Your task to perform on an android device: toggle improve location accuracy Image 0: 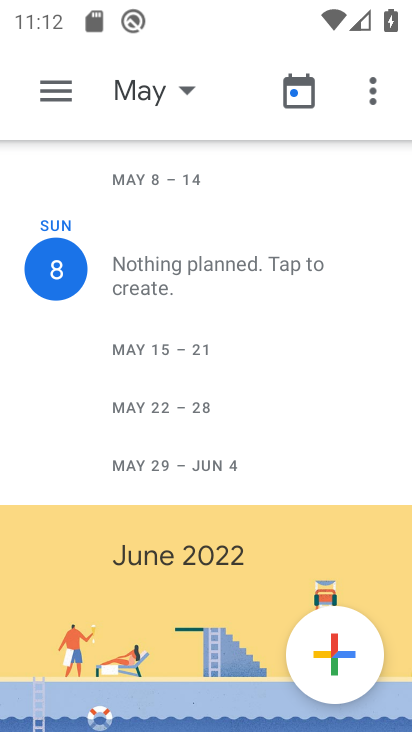
Step 0: press home button
Your task to perform on an android device: toggle improve location accuracy Image 1: 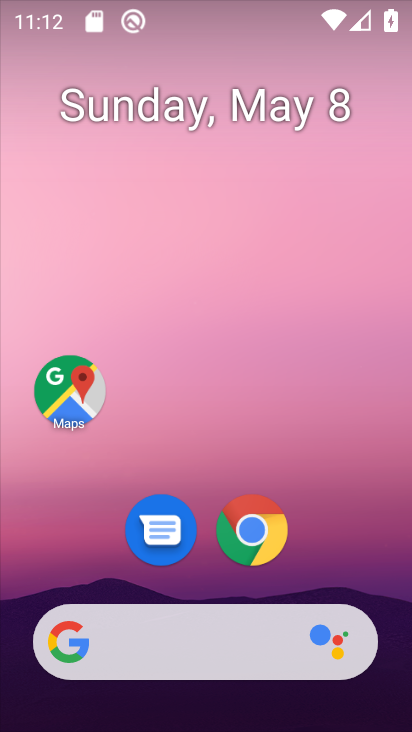
Step 1: drag from (332, 633) to (246, 30)
Your task to perform on an android device: toggle improve location accuracy Image 2: 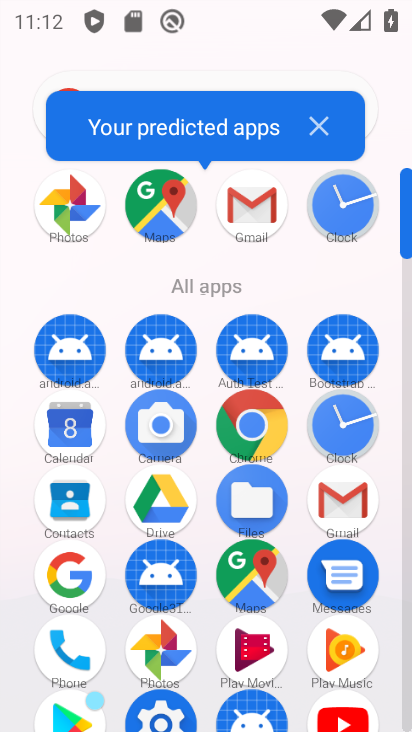
Step 2: drag from (294, 672) to (308, 307)
Your task to perform on an android device: toggle improve location accuracy Image 3: 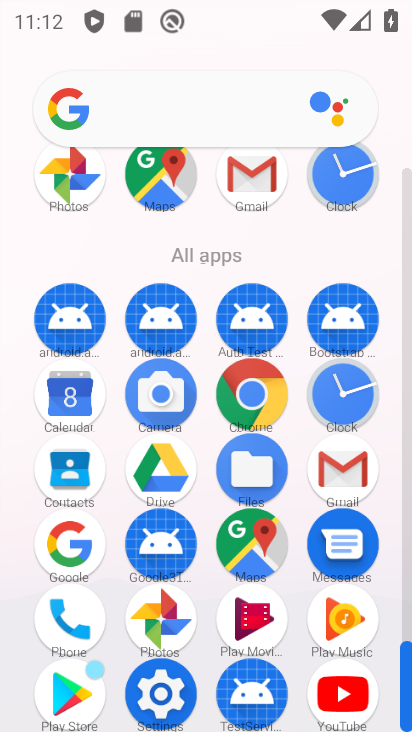
Step 3: click (149, 695)
Your task to perform on an android device: toggle improve location accuracy Image 4: 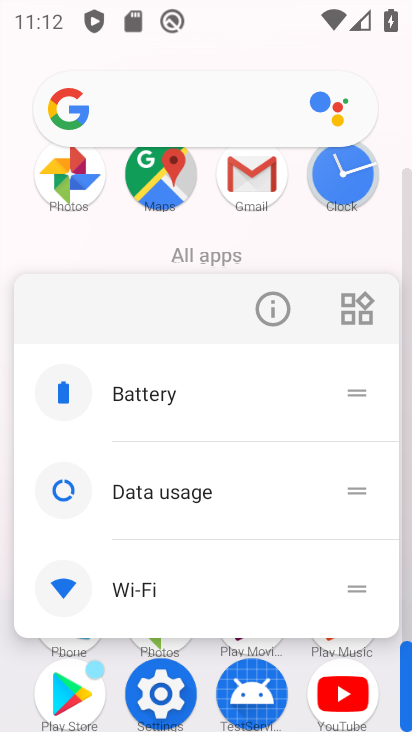
Step 4: click (171, 691)
Your task to perform on an android device: toggle improve location accuracy Image 5: 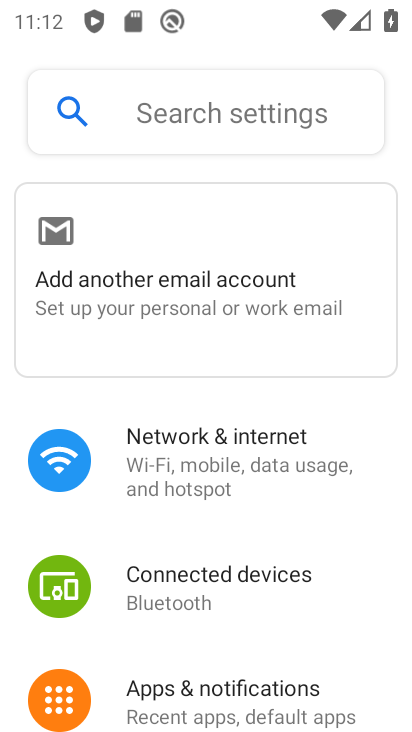
Step 5: drag from (254, 665) to (228, 129)
Your task to perform on an android device: toggle improve location accuracy Image 6: 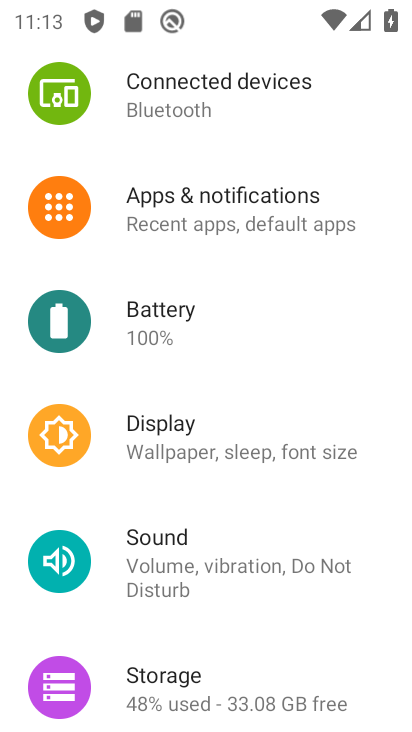
Step 6: drag from (229, 692) to (264, 232)
Your task to perform on an android device: toggle improve location accuracy Image 7: 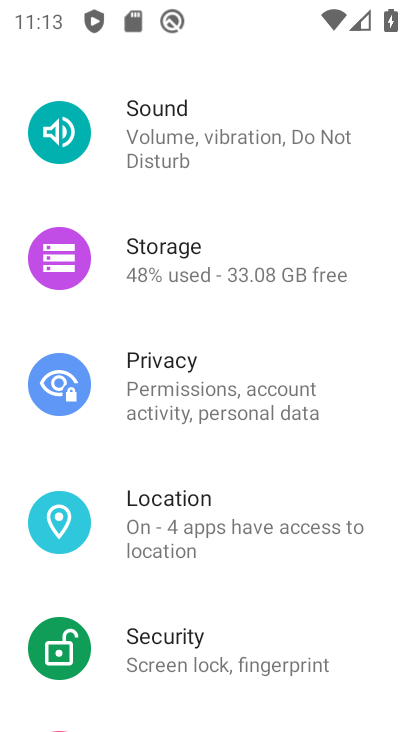
Step 7: click (234, 536)
Your task to perform on an android device: toggle improve location accuracy Image 8: 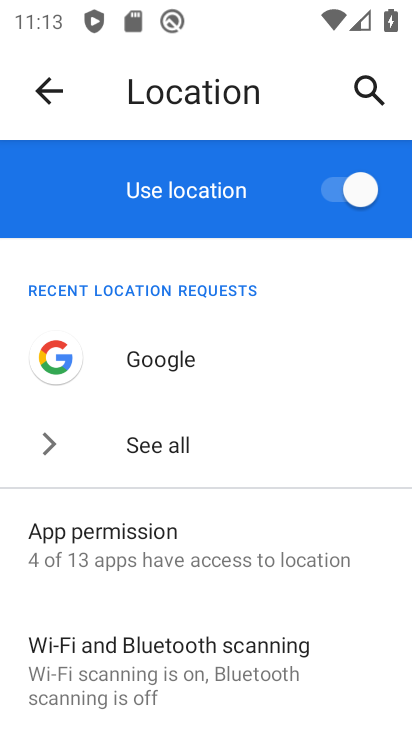
Step 8: drag from (94, 658) to (183, 206)
Your task to perform on an android device: toggle improve location accuracy Image 9: 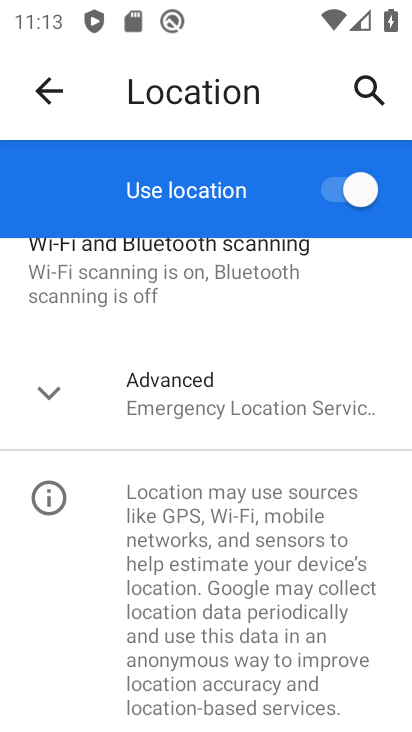
Step 9: click (266, 410)
Your task to perform on an android device: toggle improve location accuracy Image 10: 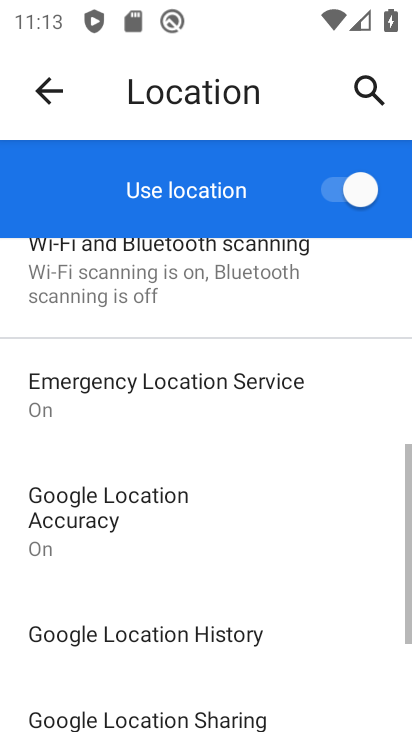
Step 10: drag from (290, 698) to (308, 412)
Your task to perform on an android device: toggle improve location accuracy Image 11: 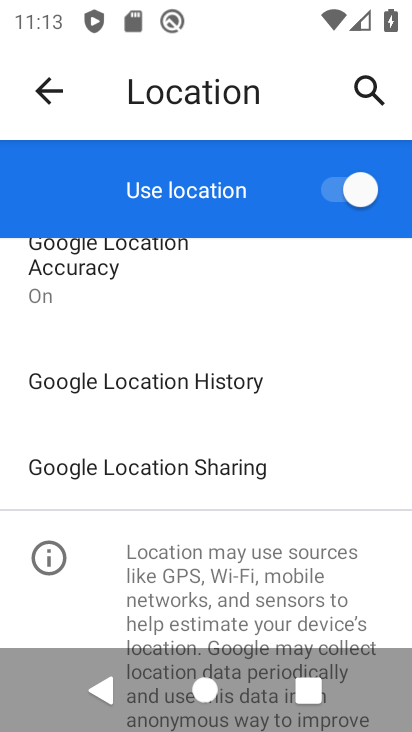
Step 11: click (177, 284)
Your task to perform on an android device: toggle improve location accuracy Image 12: 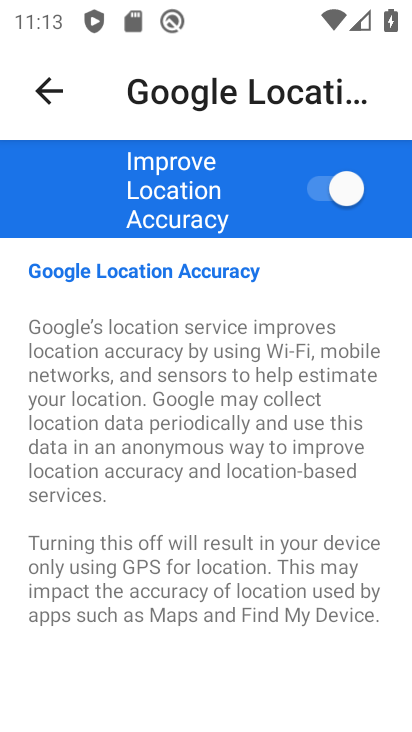
Step 12: click (318, 186)
Your task to perform on an android device: toggle improve location accuracy Image 13: 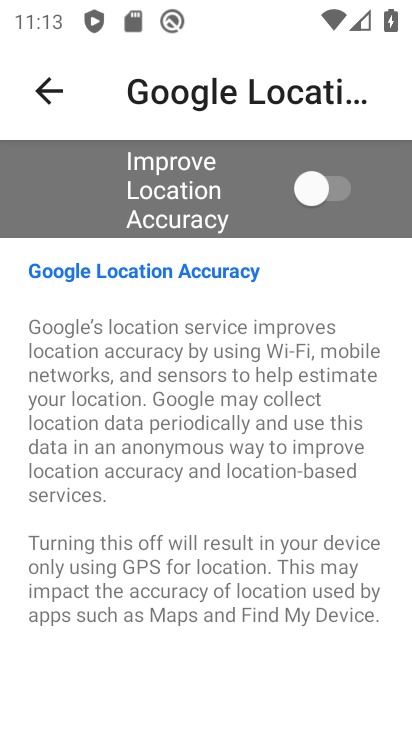
Step 13: task complete